Your task to perform on an android device: change notifications settings Image 0: 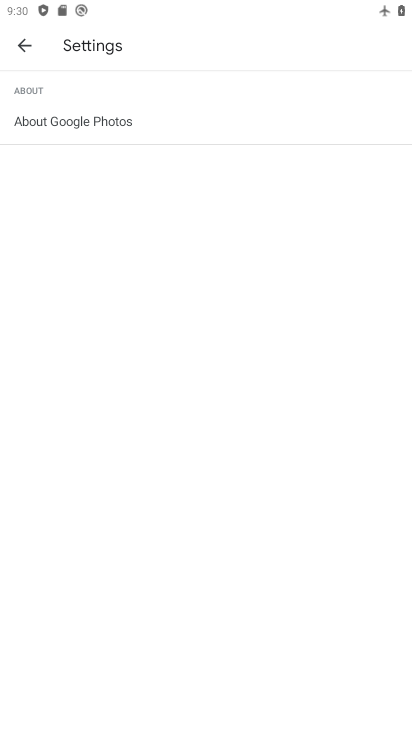
Step 0: click (19, 48)
Your task to perform on an android device: change notifications settings Image 1: 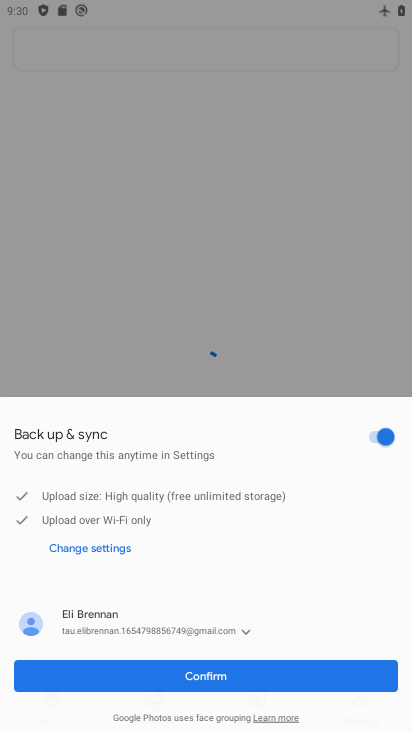
Step 1: press home button
Your task to perform on an android device: change notifications settings Image 2: 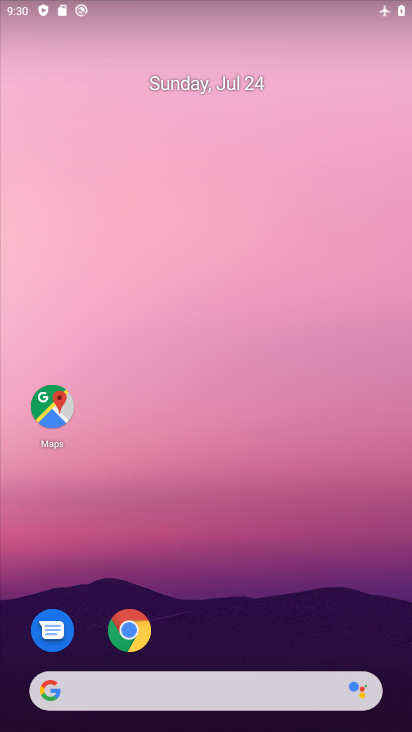
Step 2: drag from (224, 647) to (215, 205)
Your task to perform on an android device: change notifications settings Image 3: 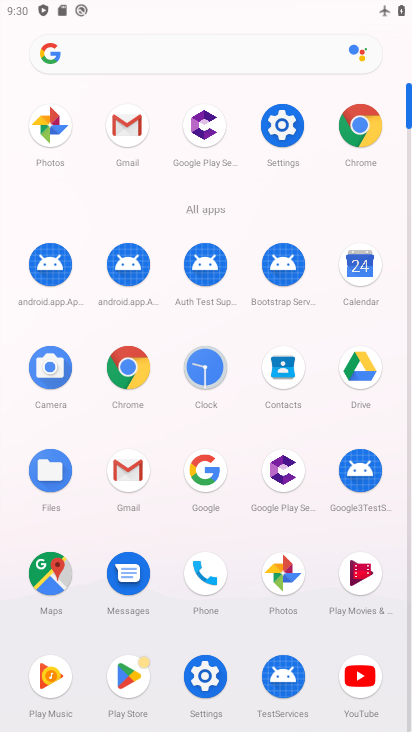
Step 3: click (288, 119)
Your task to perform on an android device: change notifications settings Image 4: 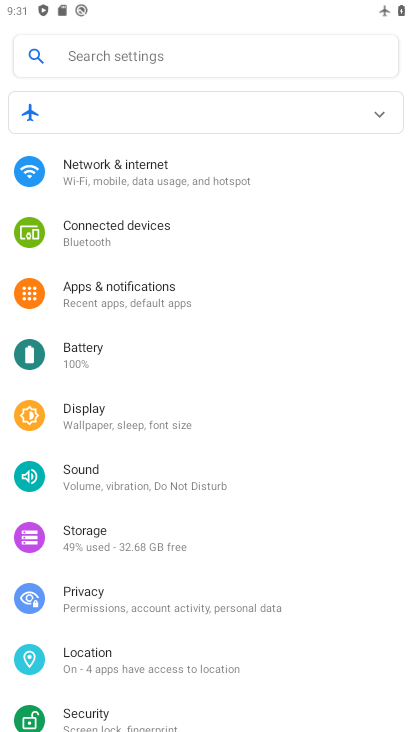
Step 4: click (106, 296)
Your task to perform on an android device: change notifications settings Image 5: 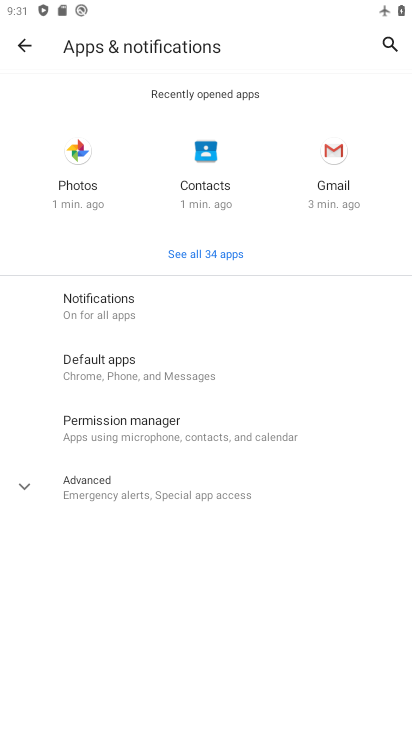
Step 5: click (27, 292)
Your task to perform on an android device: change notifications settings Image 6: 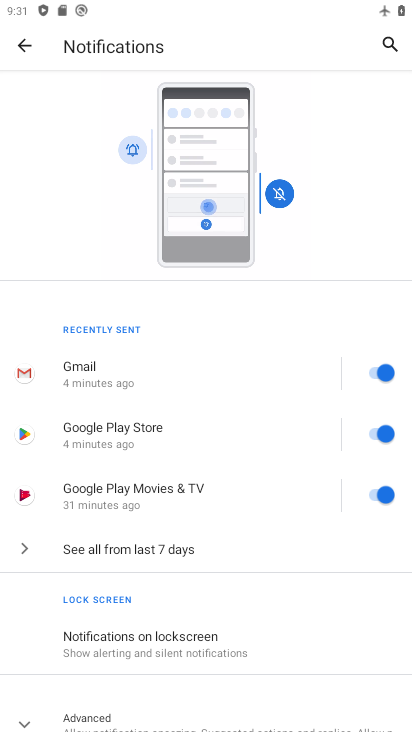
Step 6: click (183, 547)
Your task to perform on an android device: change notifications settings Image 7: 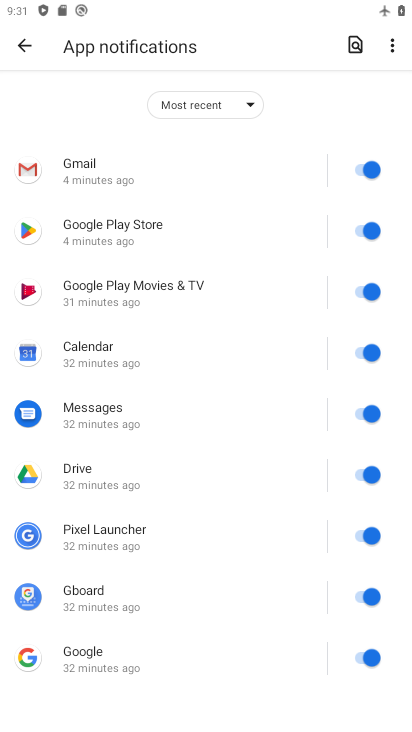
Step 7: click (356, 152)
Your task to perform on an android device: change notifications settings Image 8: 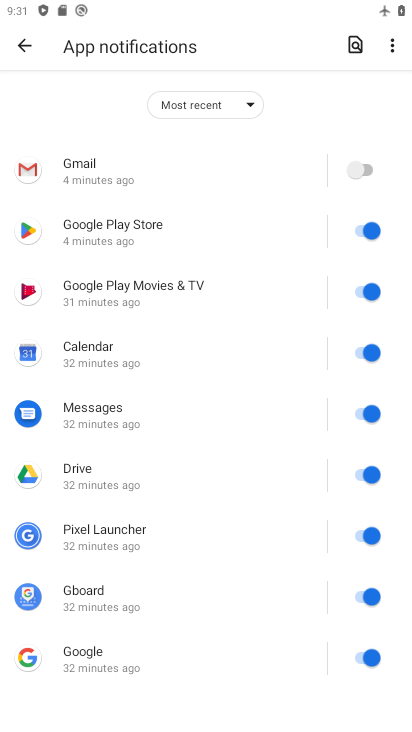
Step 8: click (360, 213)
Your task to perform on an android device: change notifications settings Image 9: 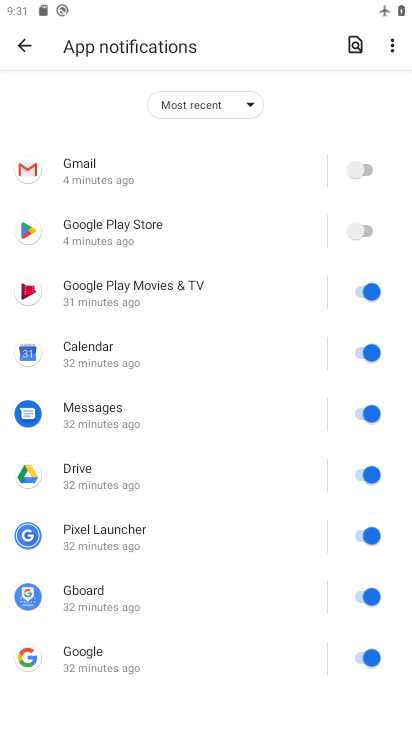
Step 9: click (386, 288)
Your task to perform on an android device: change notifications settings Image 10: 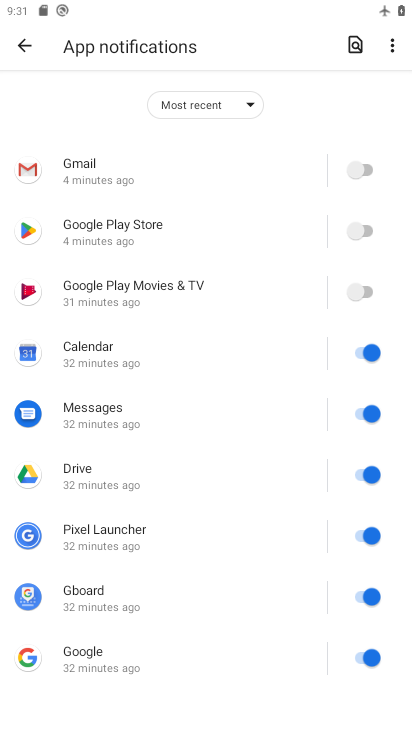
Step 10: click (362, 379)
Your task to perform on an android device: change notifications settings Image 11: 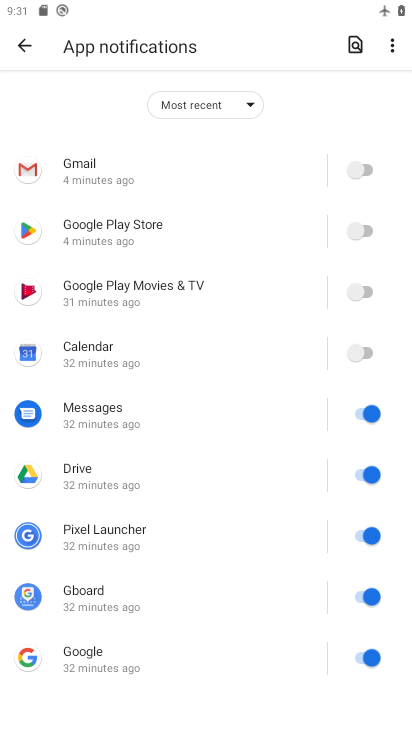
Step 11: click (18, 30)
Your task to perform on an android device: change notifications settings Image 12: 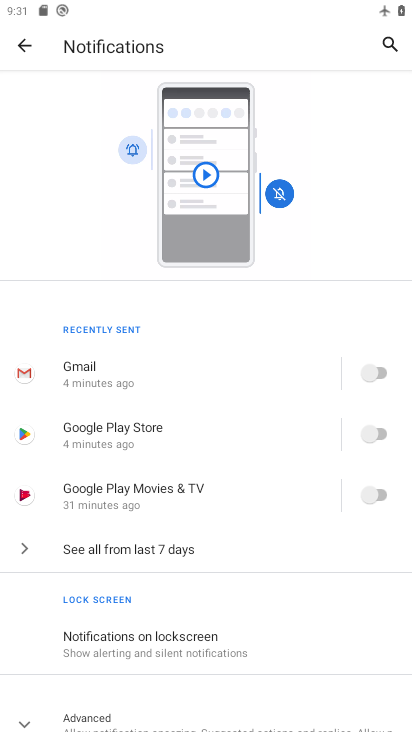
Step 12: click (166, 553)
Your task to perform on an android device: change notifications settings Image 13: 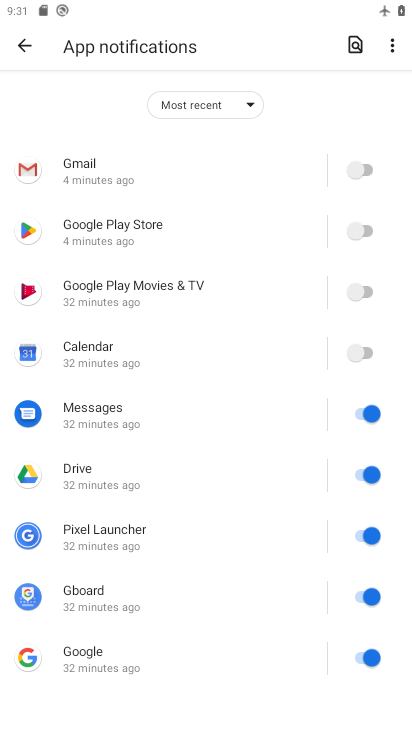
Step 13: click (351, 403)
Your task to perform on an android device: change notifications settings Image 14: 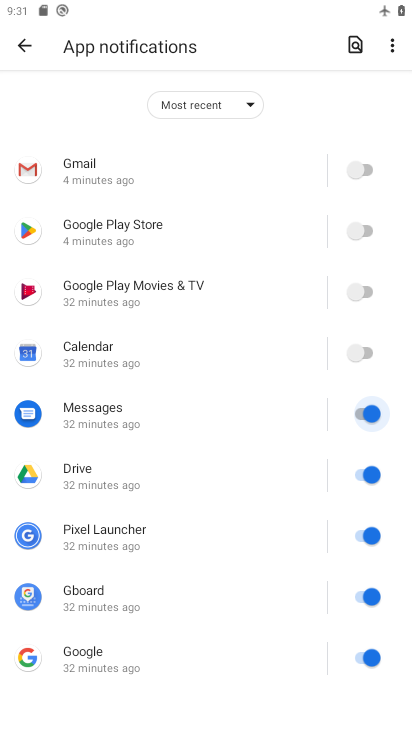
Step 14: click (360, 467)
Your task to perform on an android device: change notifications settings Image 15: 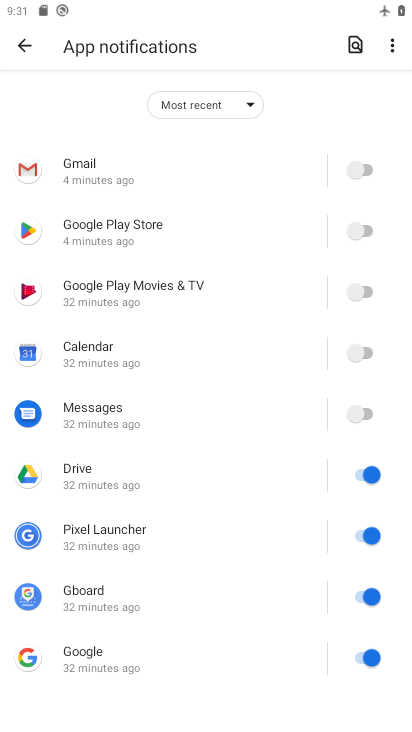
Step 15: click (364, 539)
Your task to perform on an android device: change notifications settings Image 16: 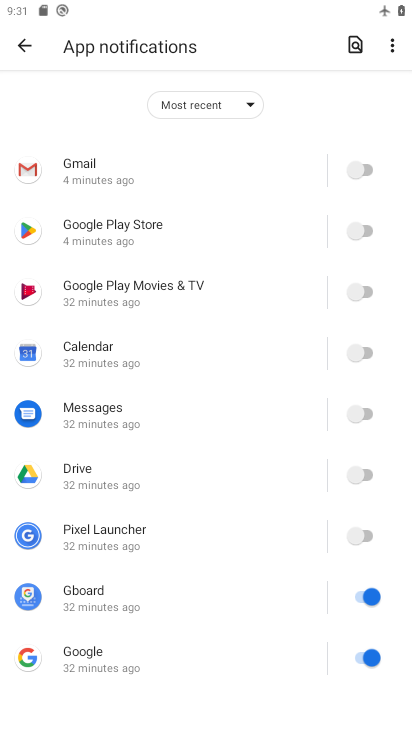
Step 16: click (362, 595)
Your task to perform on an android device: change notifications settings Image 17: 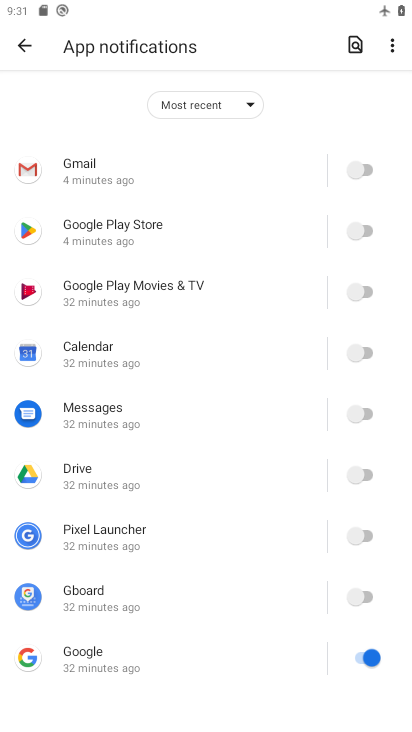
Step 17: click (360, 654)
Your task to perform on an android device: change notifications settings Image 18: 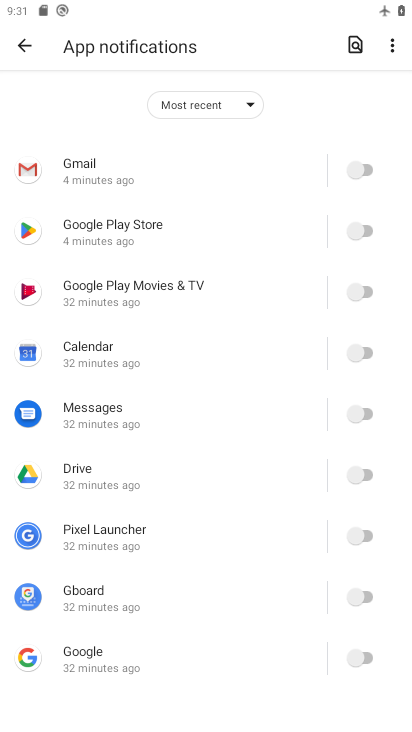
Step 18: task complete